Your task to perform on an android device: Go to wifi settings Image 0: 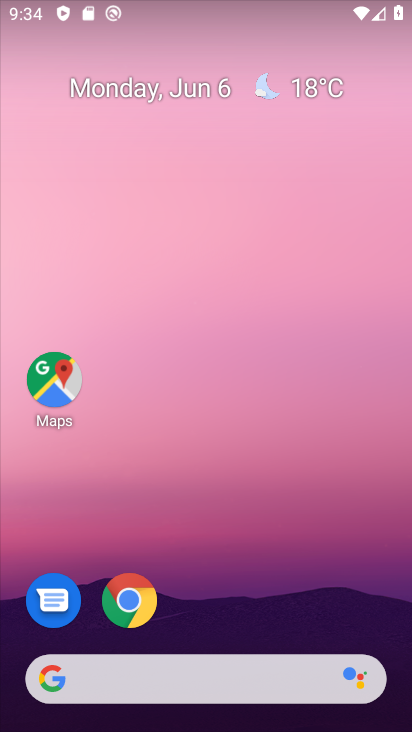
Step 0: drag from (234, 566) to (177, 20)
Your task to perform on an android device: Go to wifi settings Image 1: 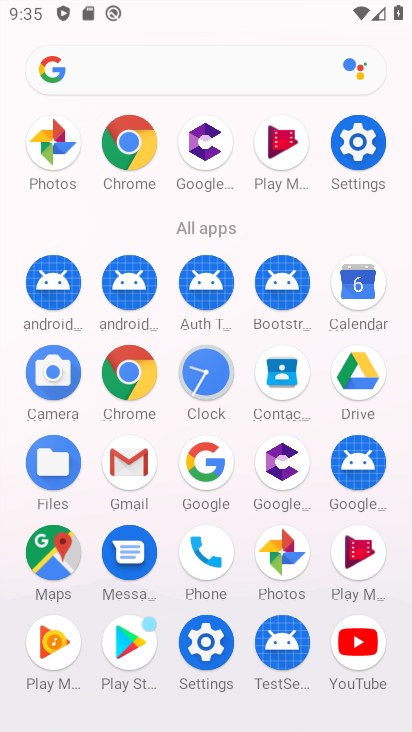
Step 1: click (207, 642)
Your task to perform on an android device: Go to wifi settings Image 2: 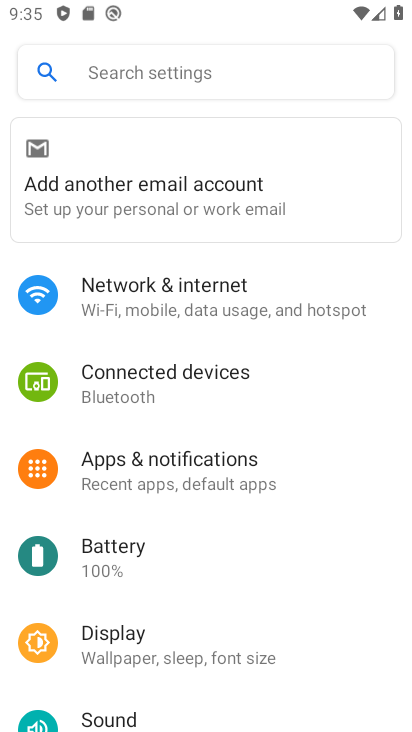
Step 2: click (185, 299)
Your task to perform on an android device: Go to wifi settings Image 3: 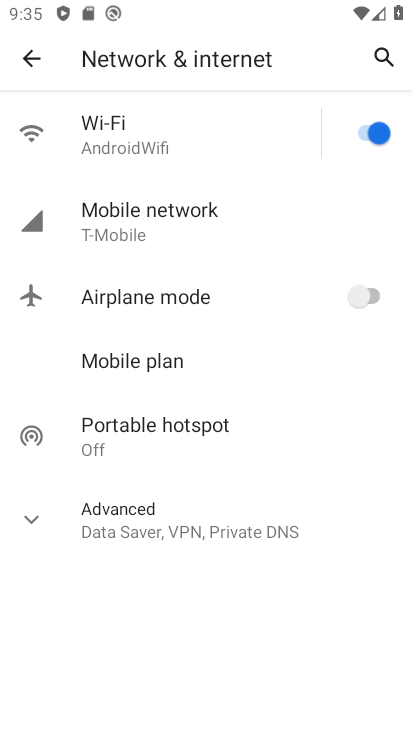
Step 3: click (47, 514)
Your task to perform on an android device: Go to wifi settings Image 4: 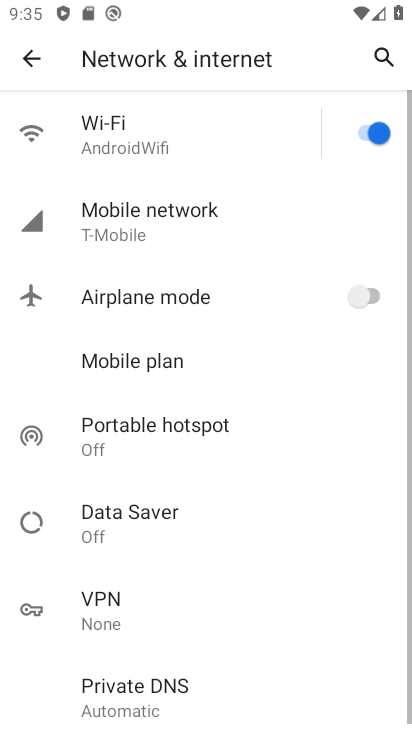
Step 4: click (159, 120)
Your task to perform on an android device: Go to wifi settings Image 5: 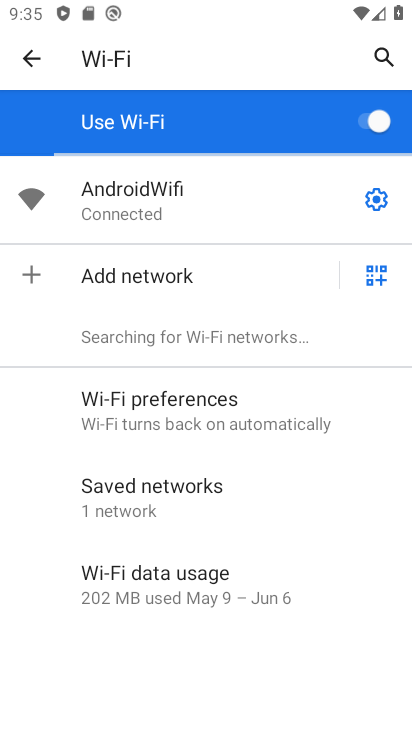
Step 5: task complete